Your task to perform on an android device: check android version Image 0: 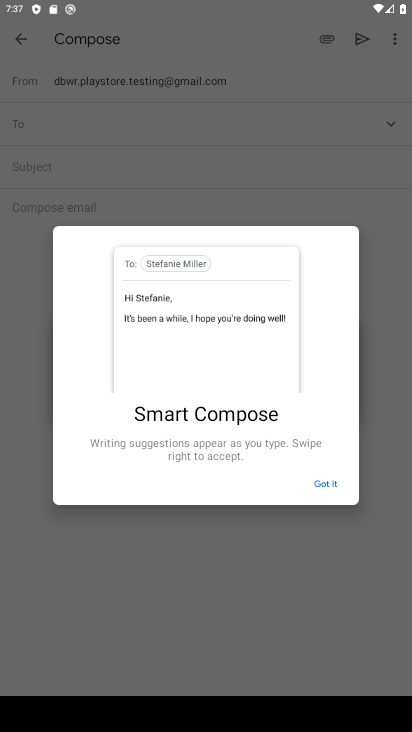
Step 0: press home button
Your task to perform on an android device: check android version Image 1: 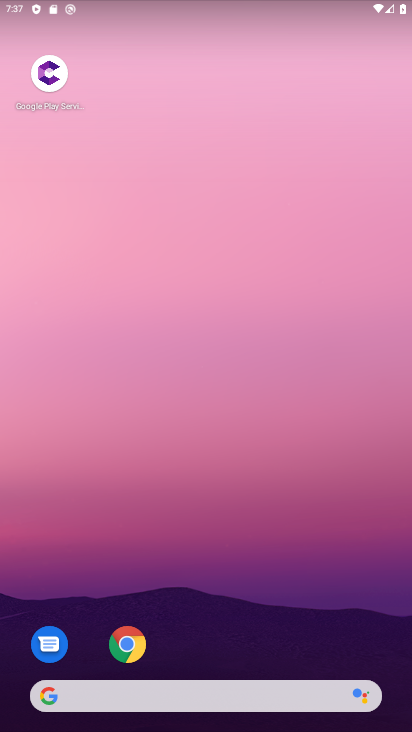
Step 1: drag from (236, 618) to (267, 222)
Your task to perform on an android device: check android version Image 2: 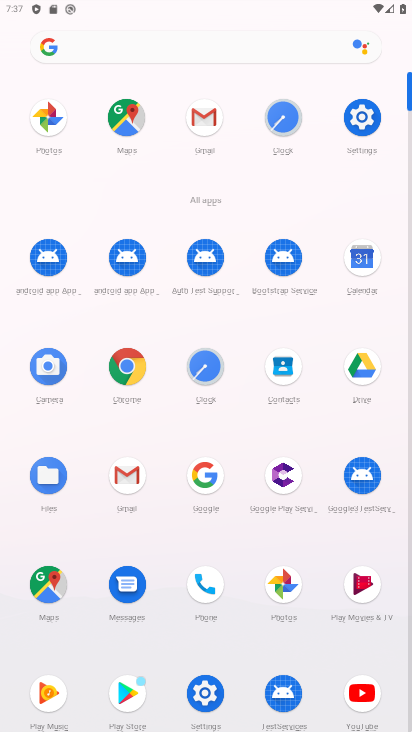
Step 2: click (363, 112)
Your task to perform on an android device: check android version Image 3: 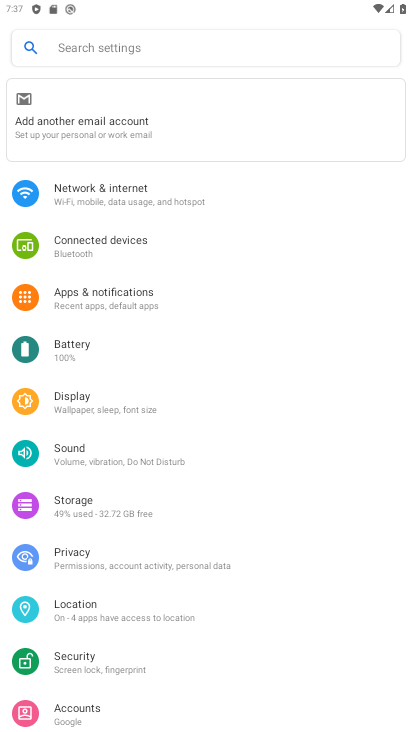
Step 3: drag from (162, 668) to (192, 92)
Your task to perform on an android device: check android version Image 4: 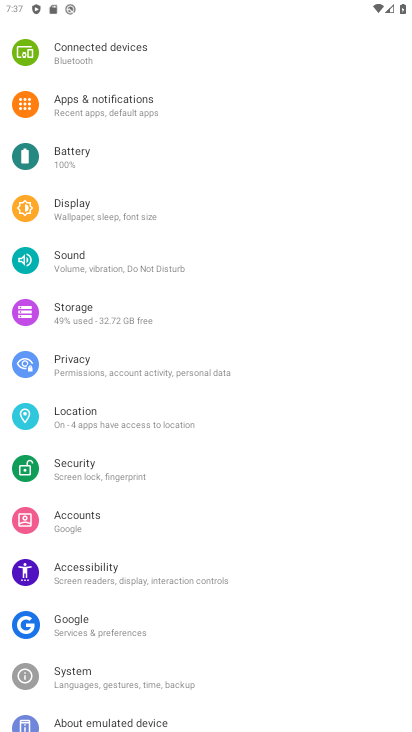
Step 4: drag from (176, 685) to (243, 92)
Your task to perform on an android device: check android version Image 5: 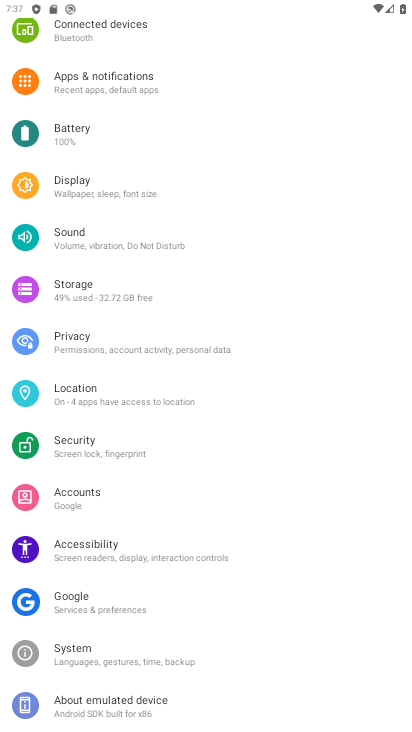
Step 5: click (129, 708)
Your task to perform on an android device: check android version Image 6: 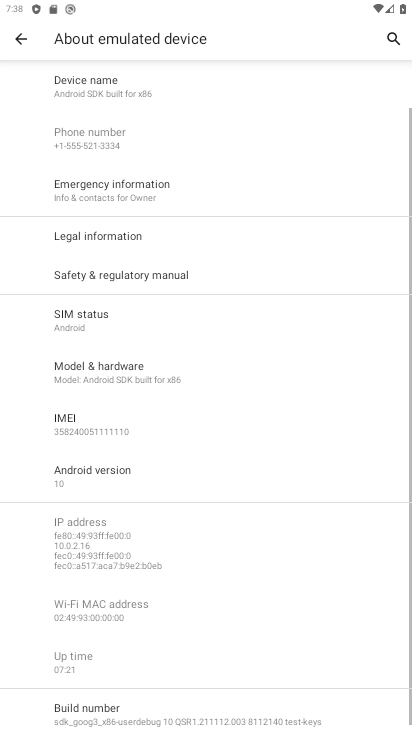
Step 6: click (99, 487)
Your task to perform on an android device: check android version Image 7: 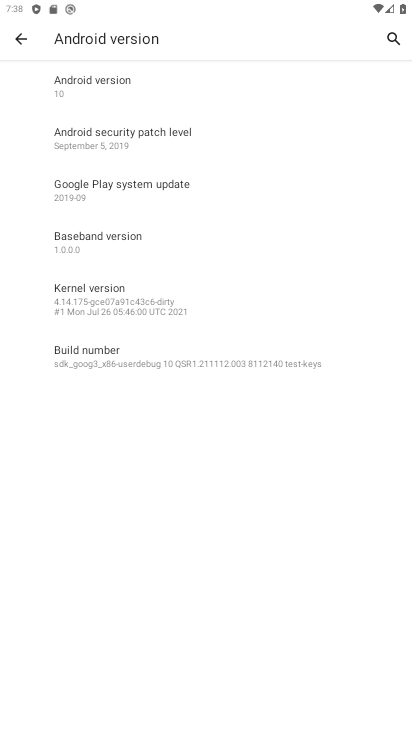
Step 7: task complete